Your task to perform on an android device: What's the latest news in space science? Image 0: 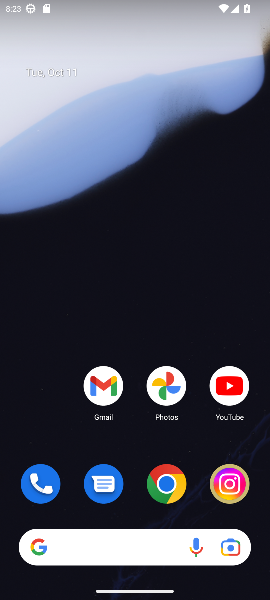
Step 0: click (167, 481)
Your task to perform on an android device: What's the latest news in space science? Image 1: 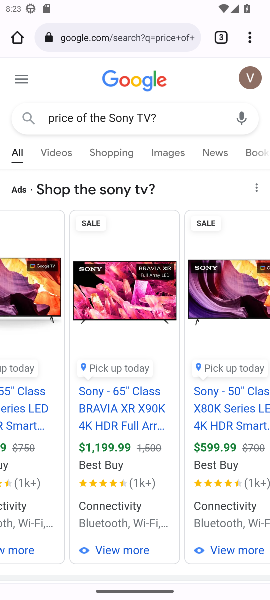
Step 1: click (167, 38)
Your task to perform on an android device: What's the latest news in space science? Image 2: 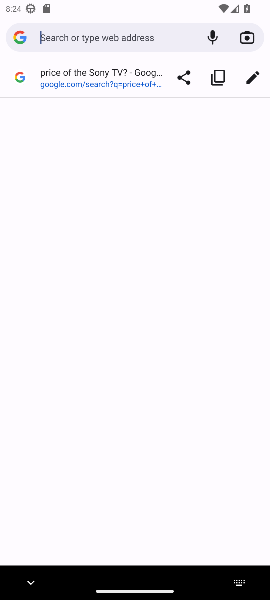
Step 2: type "Latest news in space science"
Your task to perform on an android device: What's the latest news in space science? Image 3: 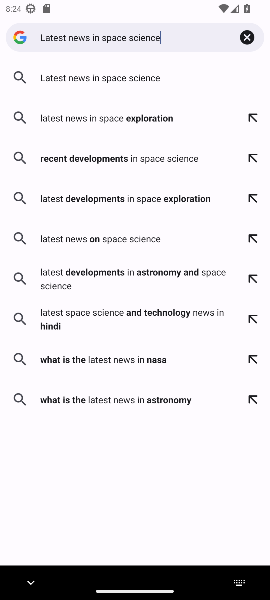
Step 3: click (86, 78)
Your task to perform on an android device: What's the latest news in space science? Image 4: 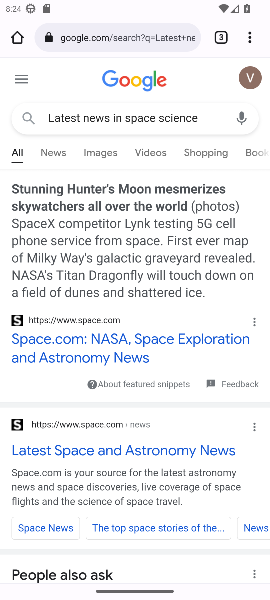
Step 4: task complete